Your task to perform on an android device: Open Chrome and go to settings Image 0: 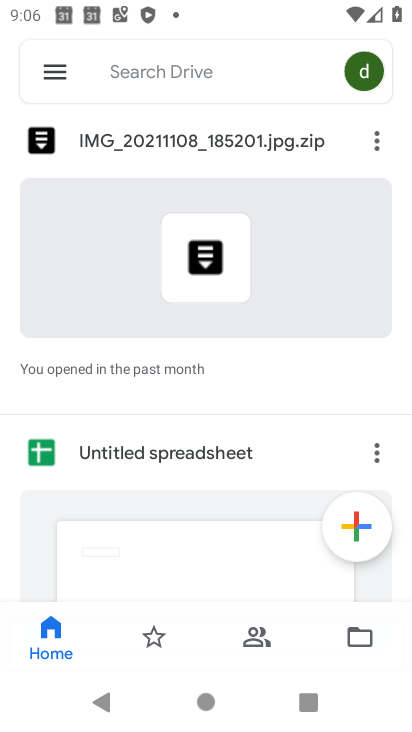
Step 0: press home button
Your task to perform on an android device: Open Chrome and go to settings Image 1: 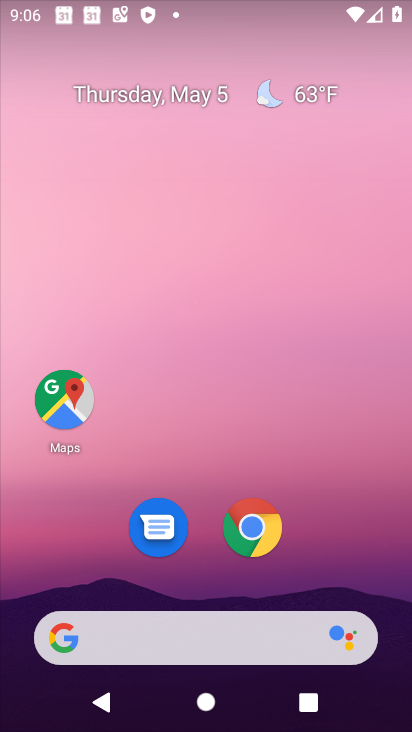
Step 1: click (246, 529)
Your task to perform on an android device: Open Chrome and go to settings Image 2: 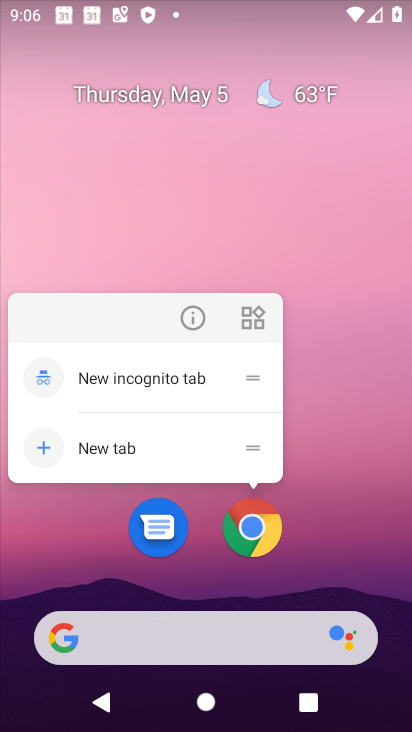
Step 2: click (246, 529)
Your task to perform on an android device: Open Chrome and go to settings Image 3: 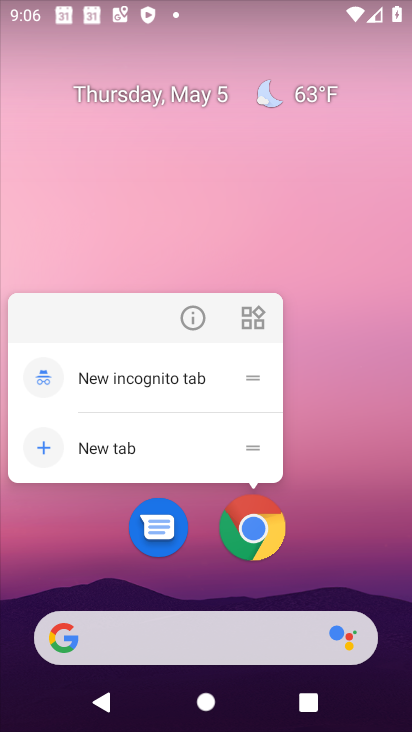
Step 3: click (246, 529)
Your task to perform on an android device: Open Chrome and go to settings Image 4: 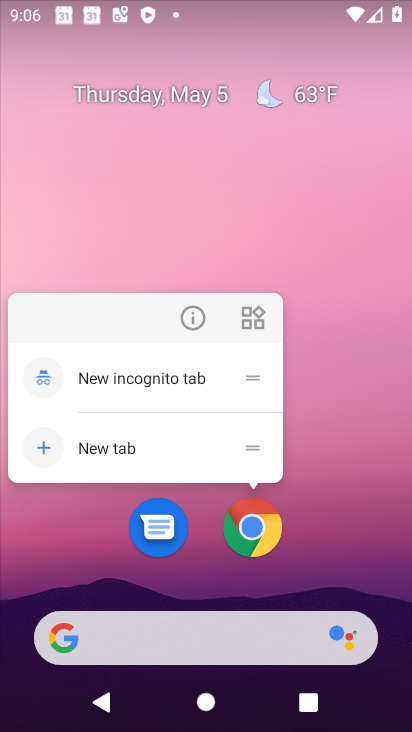
Step 4: click (246, 529)
Your task to perform on an android device: Open Chrome and go to settings Image 5: 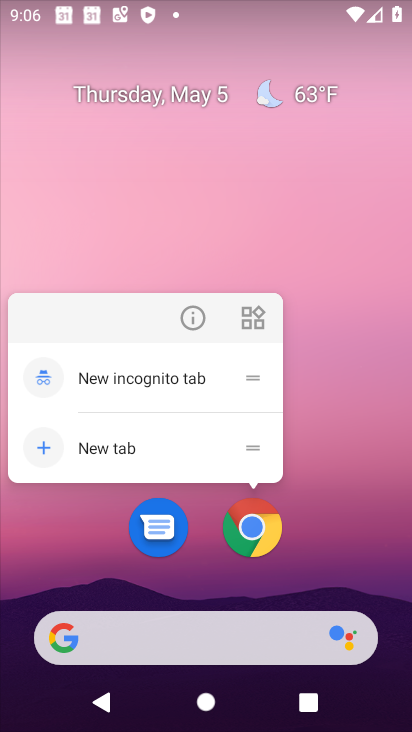
Step 5: click (246, 529)
Your task to perform on an android device: Open Chrome and go to settings Image 6: 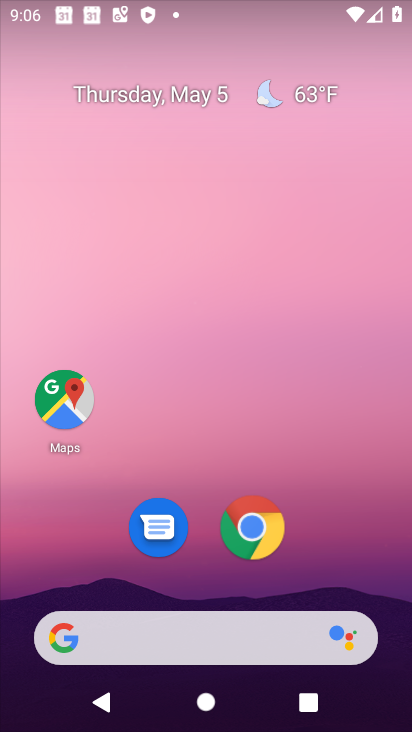
Step 6: click (246, 529)
Your task to perform on an android device: Open Chrome and go to settings Image 7: 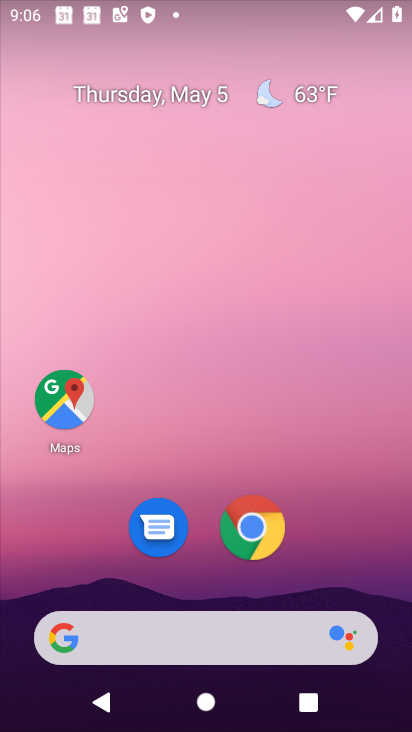
Step 7: click (246, 529)
Your task to perform on an android device: Open Chrome and go to settings Image 8: 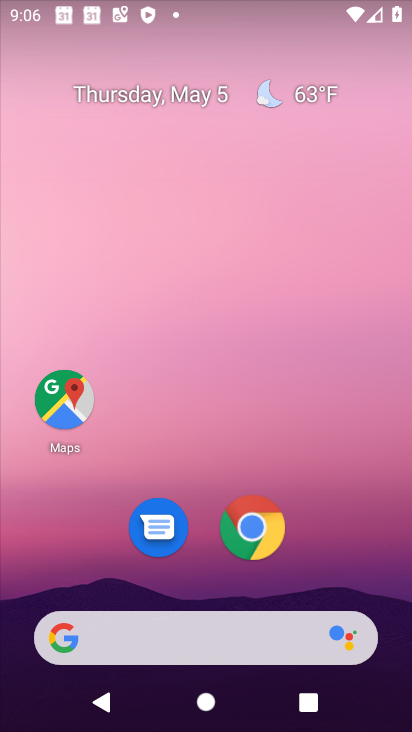
Step 8: click (246, 529)
Your task to perform on an android device: Open Chrome and go to settings Image 9: 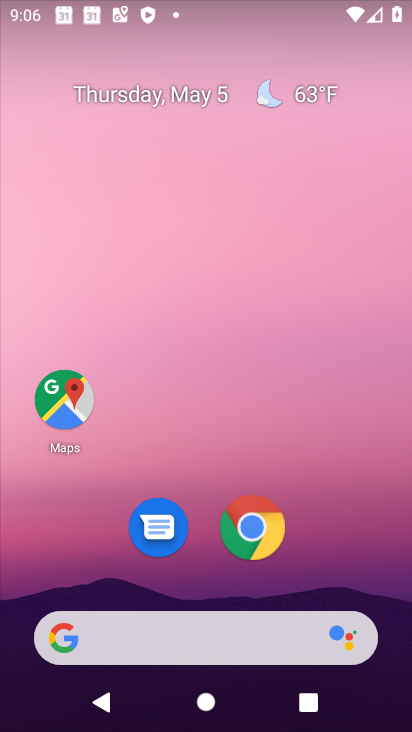
Step 9: click (246, 529)
Your task to perform on an android device: Open Chrome and go to settings Image 10: 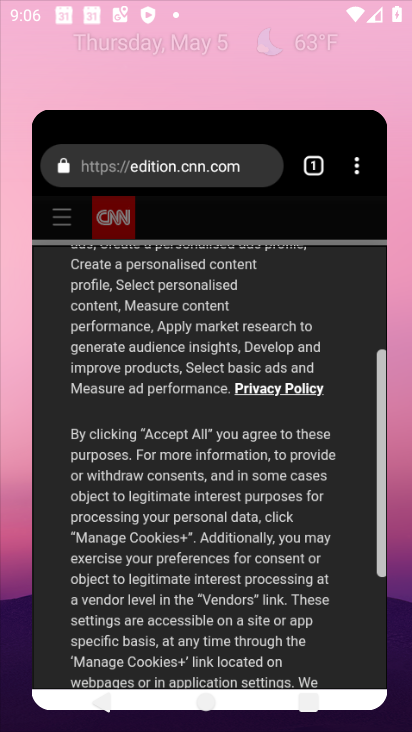
Step 10: click (246, 529)
Your task to perform on an android device: Open Chrome and go to settings Image 11: 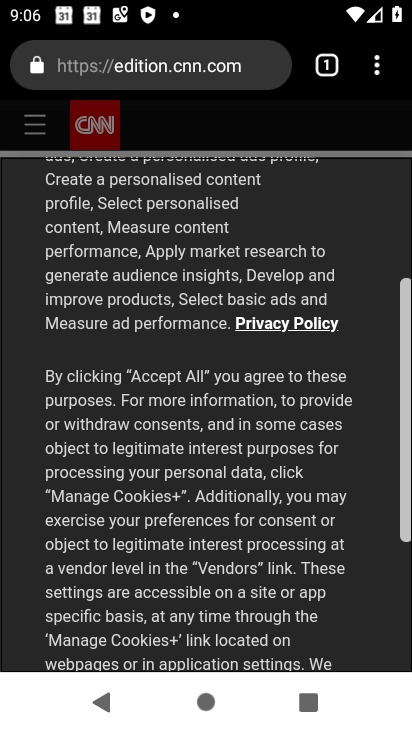
Step 11: click (246, 529)
Your task to perform on an android device: Open Chrome and go to settings Image 12: 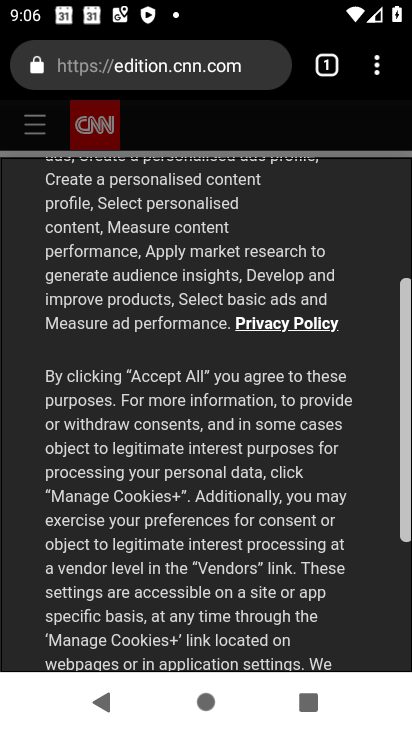
Step 12: click (246, 529)
Your task to perform on an android device: Open Chrome and go to settings Image 13: 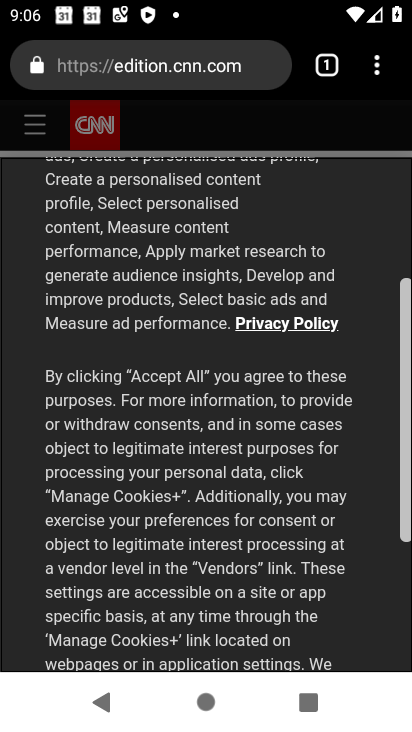
Step 13: click (246, 529)
Your task to perform on an android device: Open Chrome and go to settings Image 14: 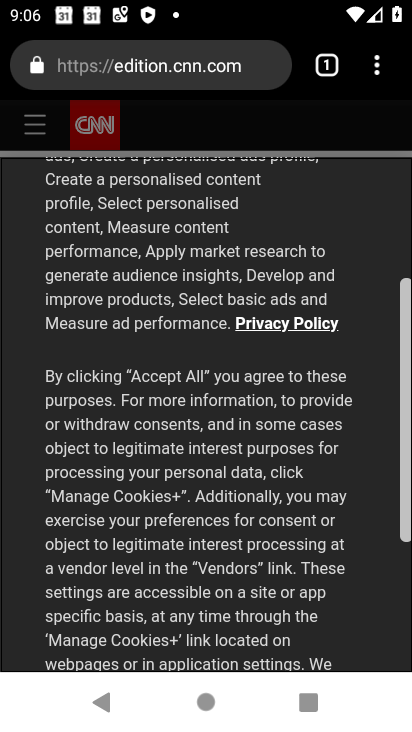
Step 14: drag from (389, 60) to (179, 625)
Your task to perform on an android device: Open Chrome and go to settings Image 15: 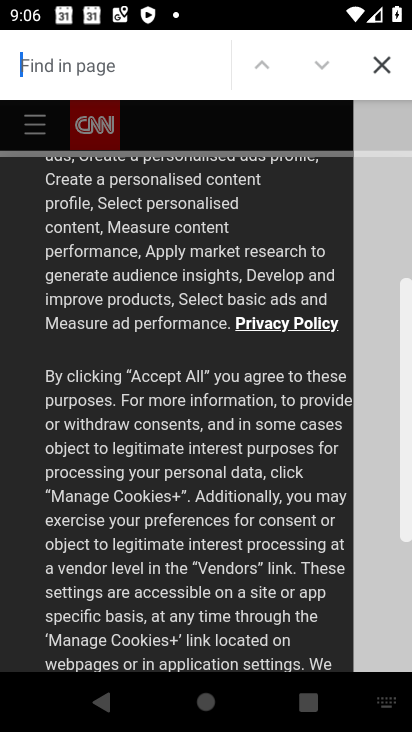
Step 15: click (376, 72)
Your task to perform on an android device: Open Chrome and go to settings Image 16: 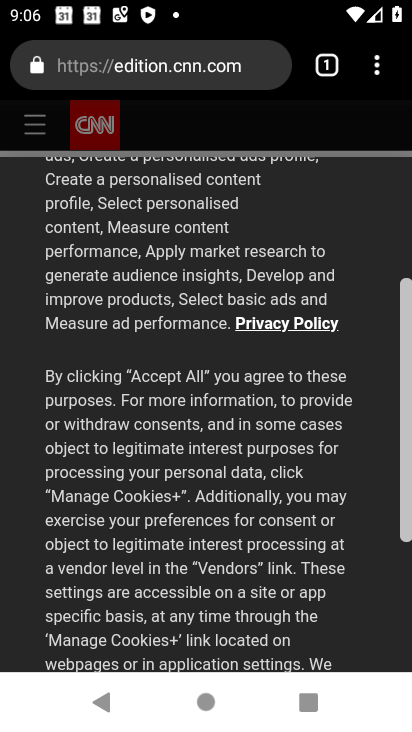
Step 16: drag from (379, 68) to (240, 571)
Your task to perform on an android device: Open Chrome and go to settings Image 17: 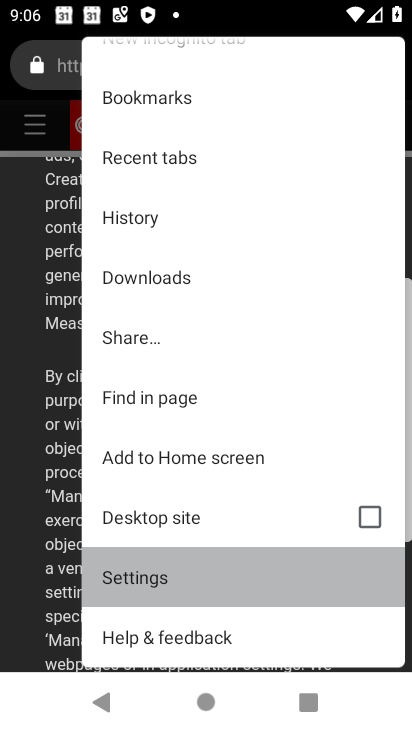
Step 17: click (234, 564)
Your task to perform on an android device: Open Chrome and go to settings Image 18: 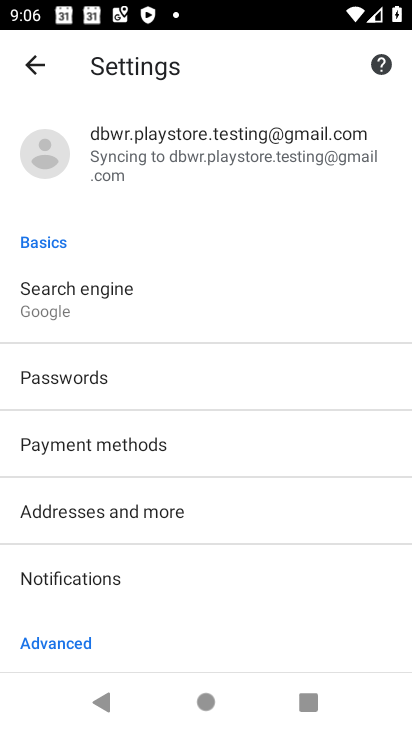
Step 18: task complete